Your task to perform on an android device: Add usb-c to usb-a to the cart on walmart.com Image 0: 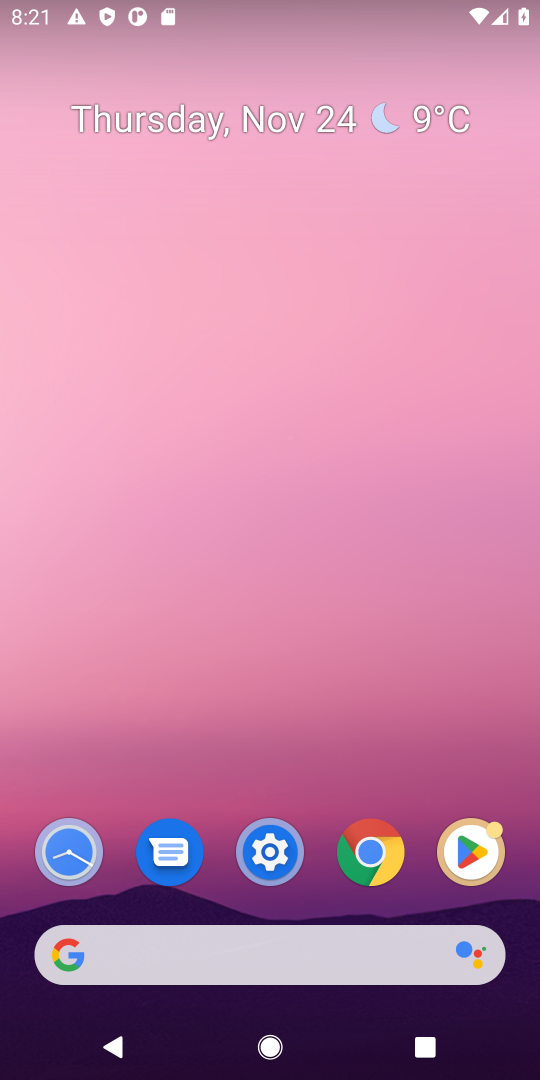
Step 0: press home button
Your task to perform on an android device: Add usb-c to usb-a to the cart on walmart.com Image 1: 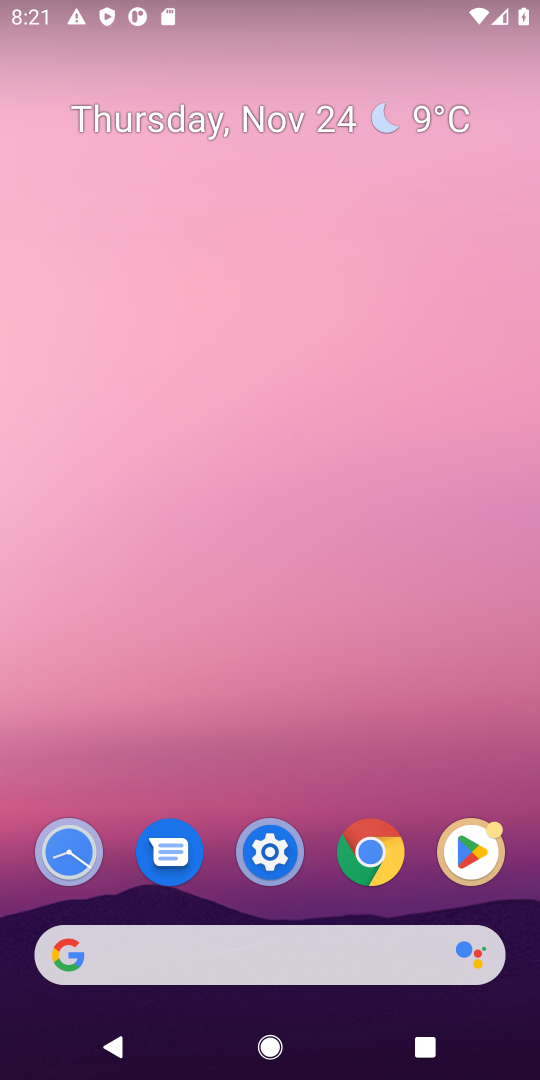
Step 1: click (228, 964)
Your task to perform on an android device: Add usb-c to usb-a to the cart on walmart.com Image 2: 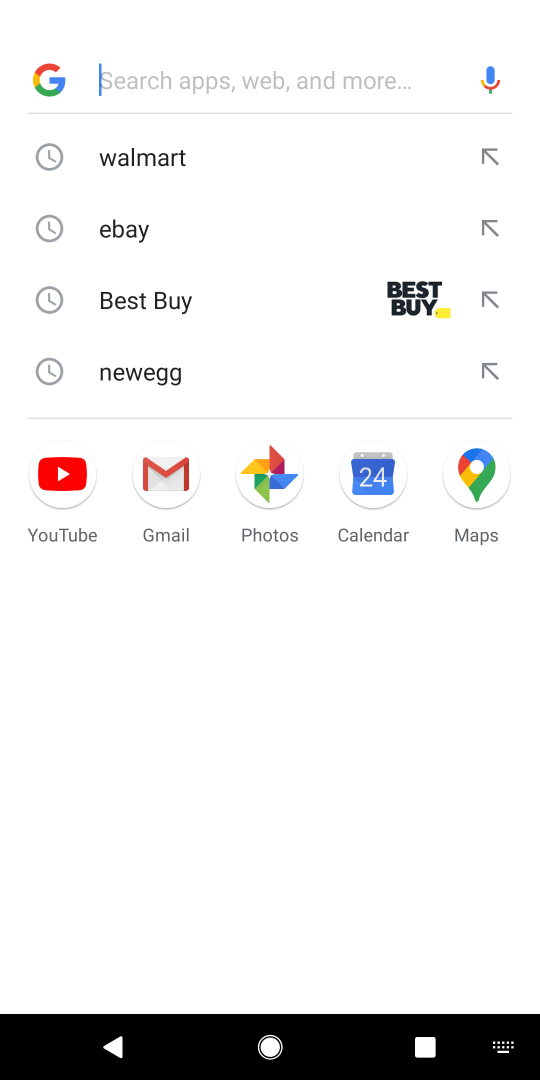
Step 2: click (155, 158)
Your task to perform on an android device: Add usb-c to usb-a to the cart on walmart.com Image 3: 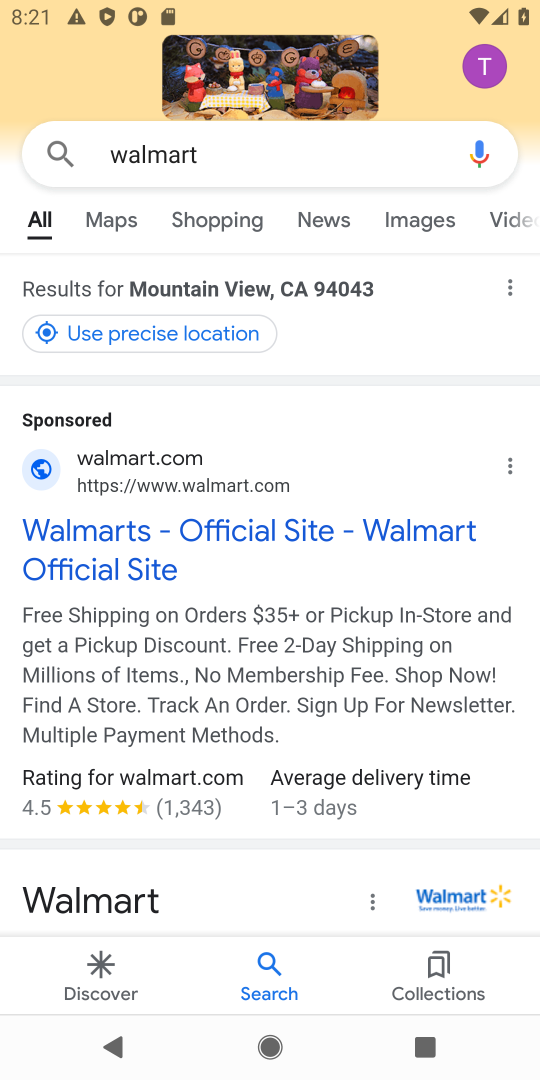
Step 3: click (121, 467)
Your task to perform on an android device: Add usb-c to usb-a to the cart on walmart.com Image 4: 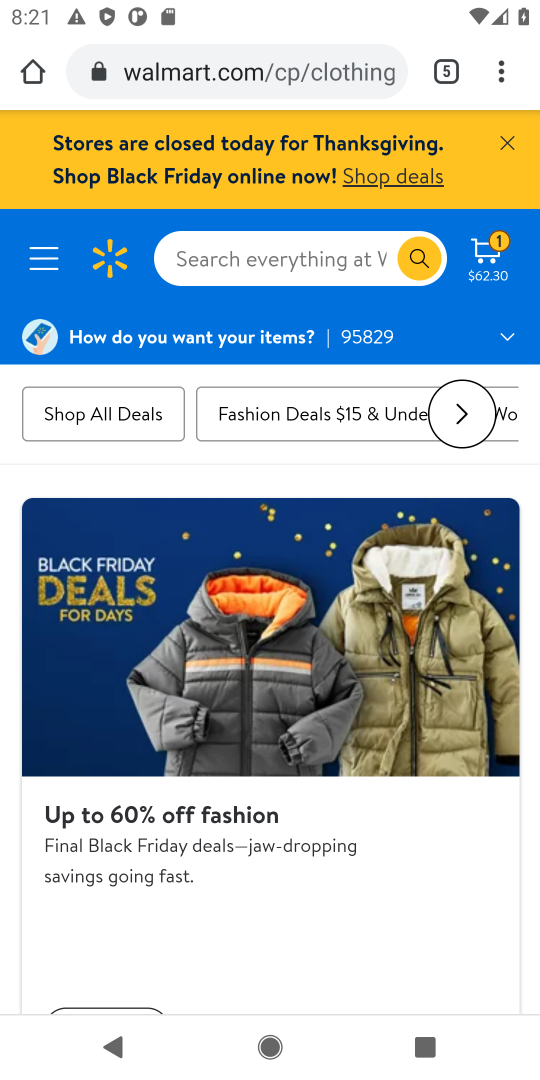
Step 4: click (268, 256)
Your task to perform on an android device: Add usb-c to usb-a to the cart on walmart.com Image 5: 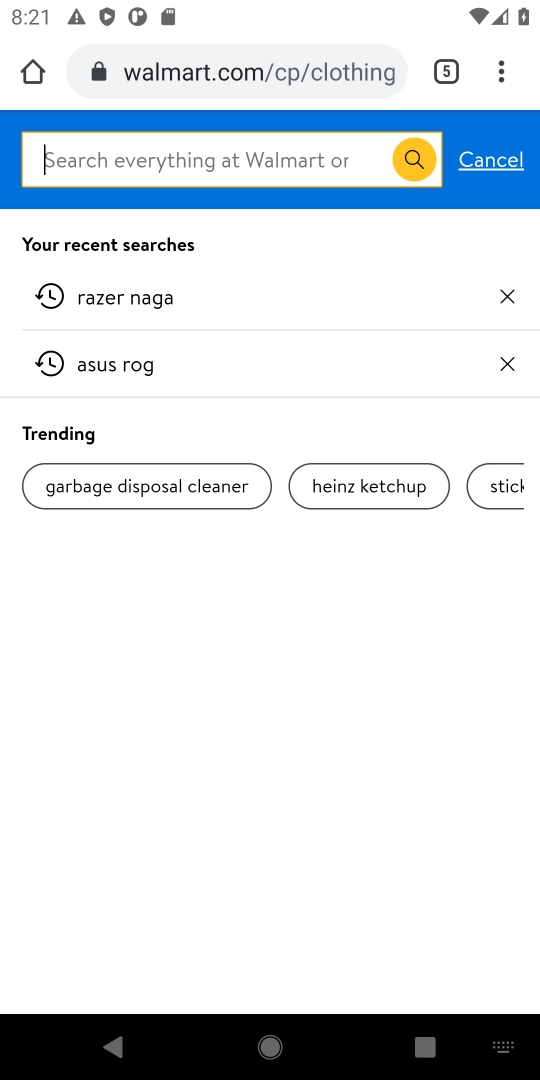
Step 5: type "usb-c to usb-a "
Your task to perform on an android device: Add usb-c to usb-a to the cart on walmart.com Image 6: 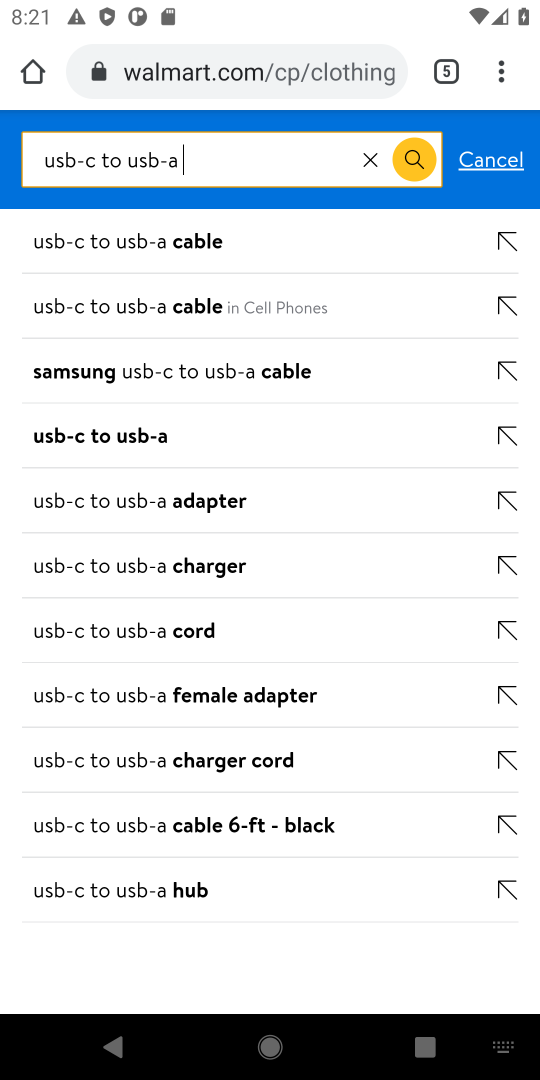
Step 6: click (138, 237)
Your task to perform on an android device: Add usb-c to usb-a to the cart on walmart.com Image 7: 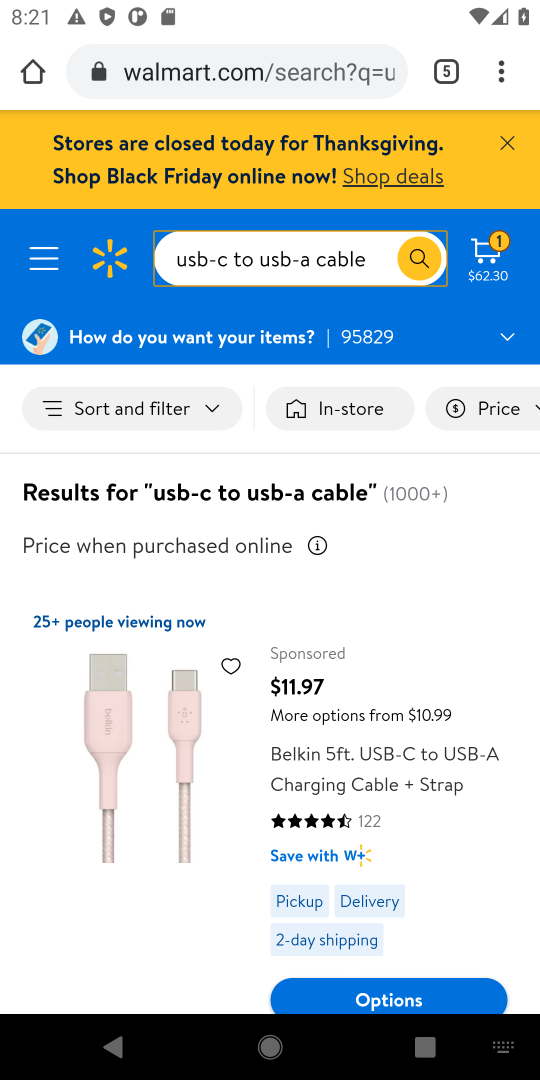
Step 7: drag from (381, 777) to (348, 565)
Your task to perform on an android device: Add usb-c to usb-a to the cart on walmart.com Image 8: 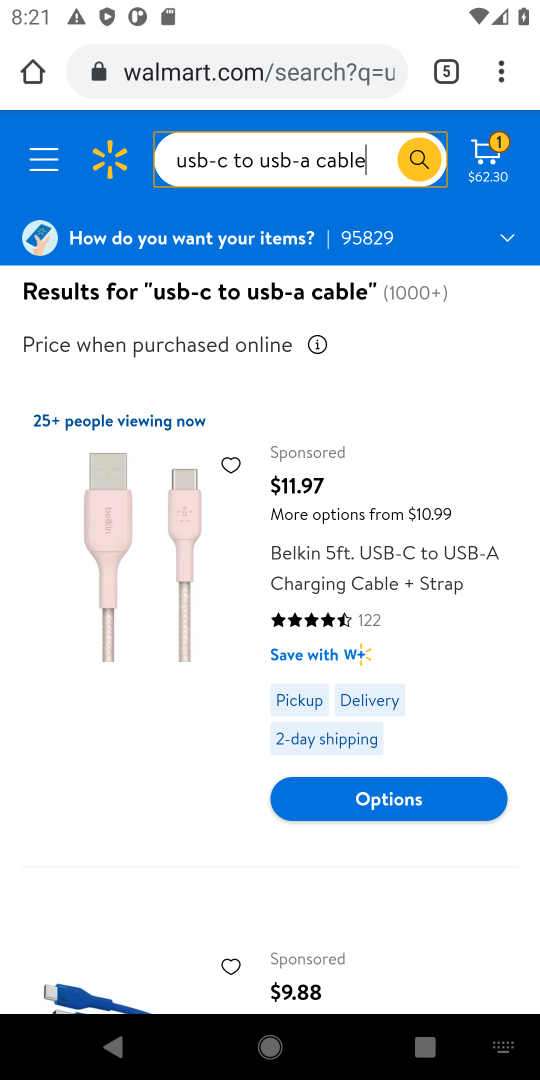
Step 8: click (383, 803)
Your task to perform on an android device: Add usb-c to usb-a to the cart on walmart.com Image 9: 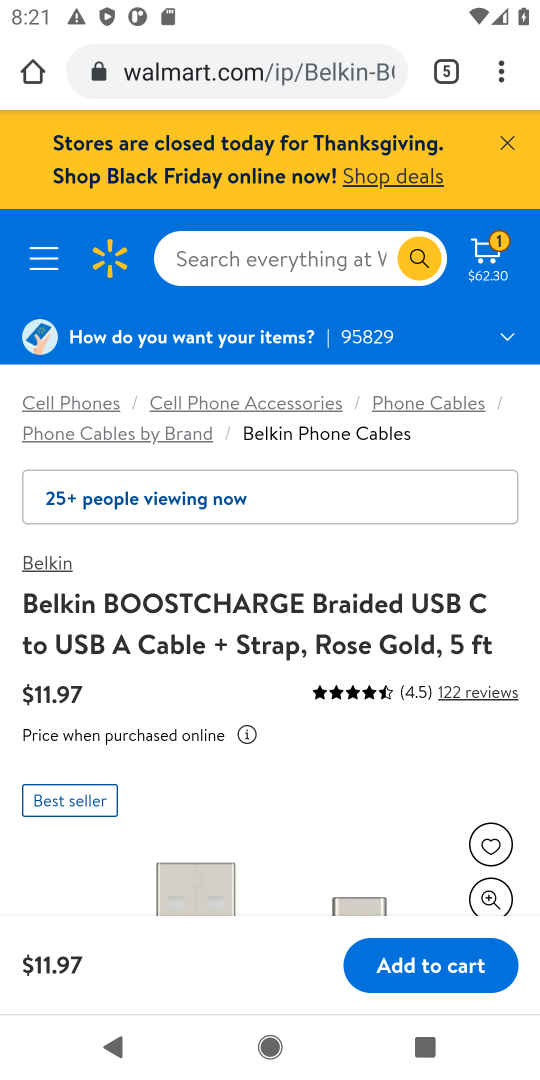
Step 9: click (432, 973)
Your task to perform on an android device: Add usb-c to usb-a to the cart on walmart.com Image 10: 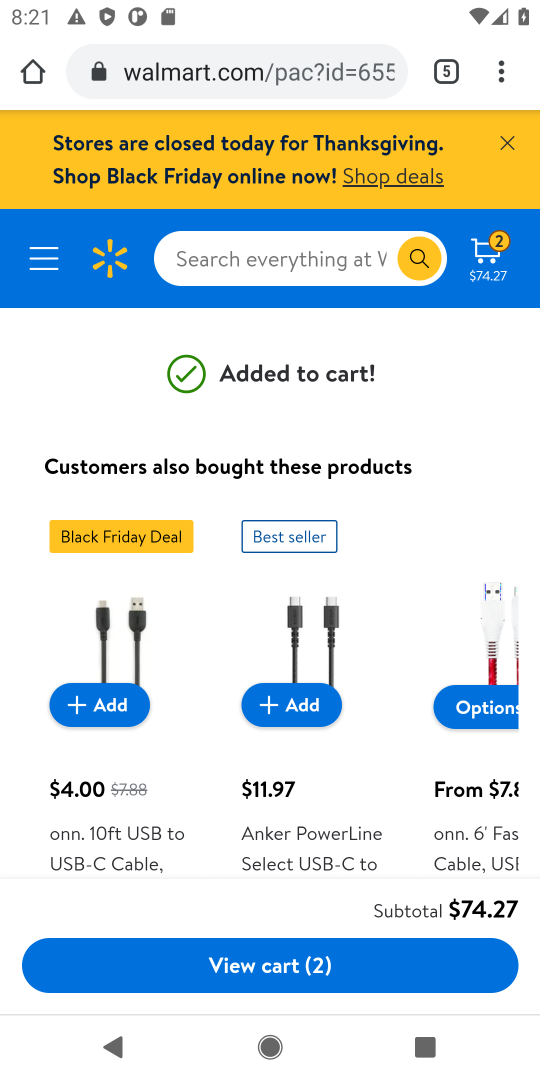
Step 10: task complete